Your task to perform on an android device: turn pop-ups off in chrome Image 0: 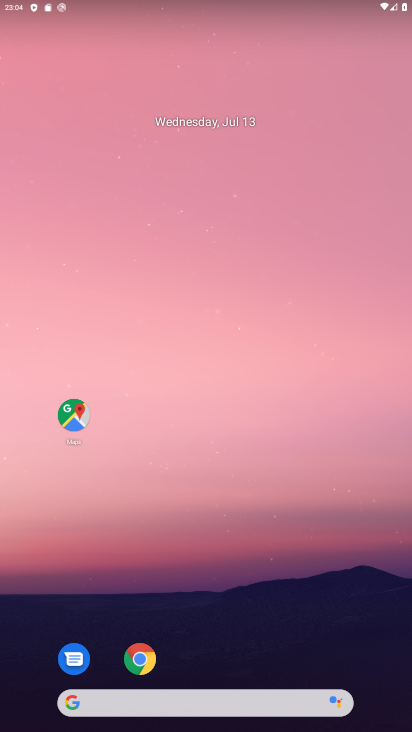
Step 0: click (142, 659)
Your task to perform on an android device: turn pop-ups off in chrome Image 1: 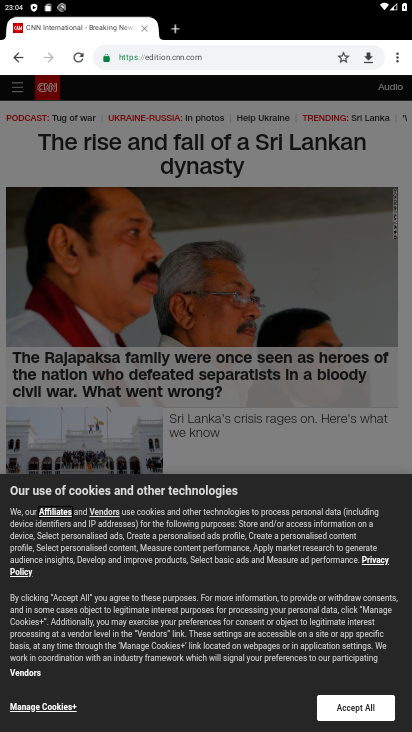
Step 1: click (396, 62)
Your task to perform on an android device: turn pop-ups off in chrome Image 2: 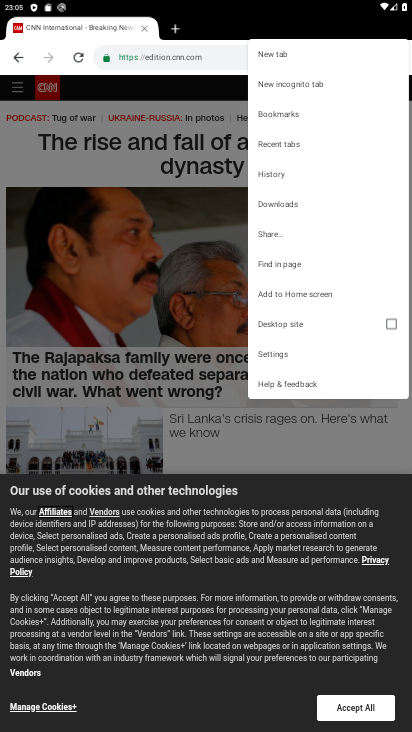
Step 2: click (273, 347)
Your task to perform on an android device: turn pop-ups off in chrome Image 3: 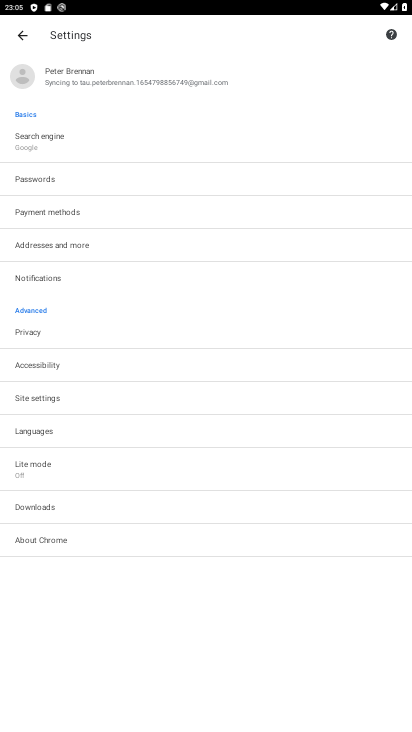
Step 3: click (38, 401)
Your task to perform on an android device: turn pop-ups off in chrome Image 4: 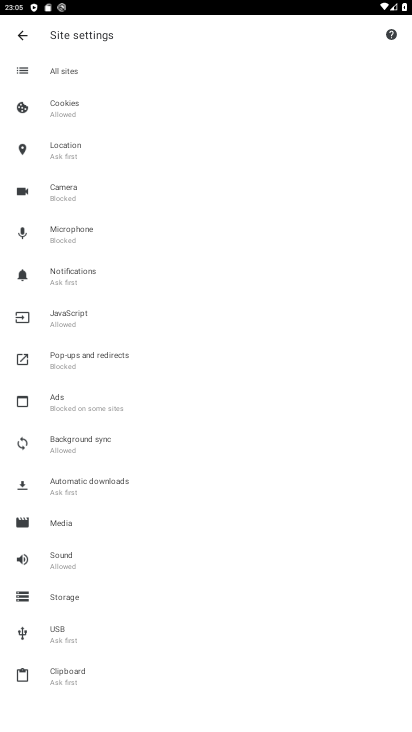
Step 4: click (67, 357)
Your task to perform on an android device: turn pop-ups off in chrome Image 5: 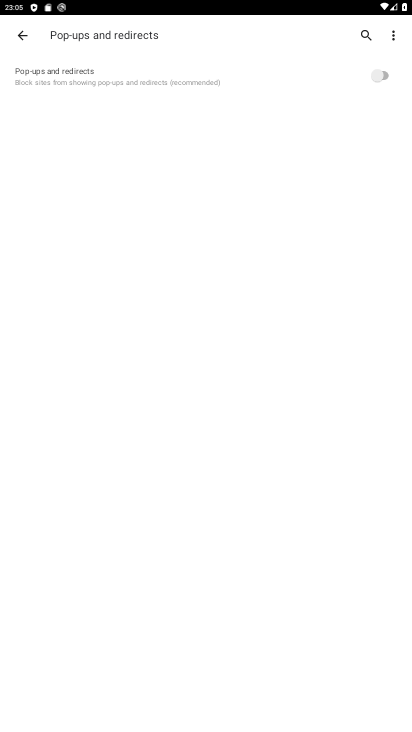
Step 5: task complete